Your task to perform on an android device: Play the last video I watched on Youtube Image 0: 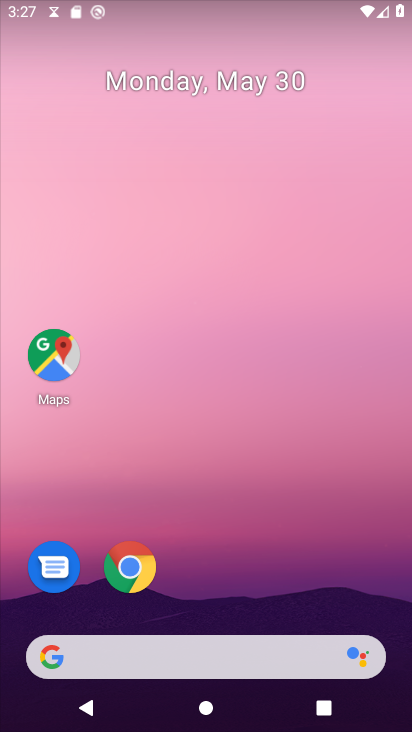
Step 0: drag from (271, 705) to (151, 63)
Your task to perform on an android device: Play the last video I watched on Youtube Image 1: 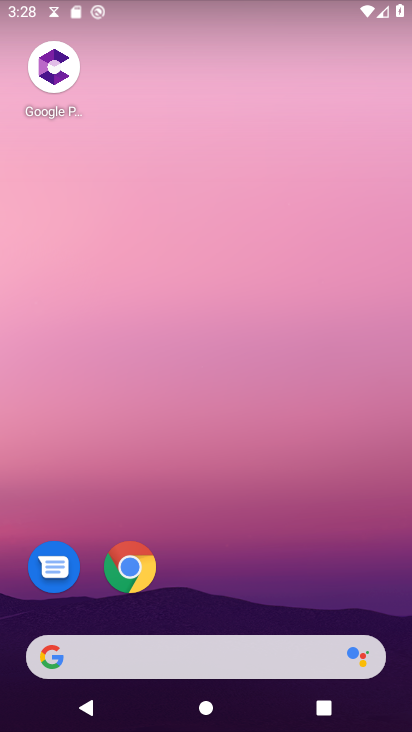
Step 1: drag from (263, 679) to (140, 36)
Your task to perform on an android device: Play the last video I watched on Youtube Image 2: 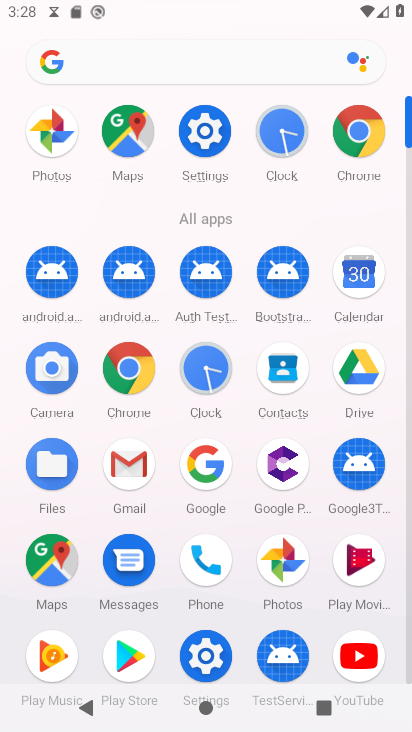
Step 2: drag from (216, 464) to (228, 36)
Your task to perform on an android device: Play the last video I watched on Youtube Image 3: 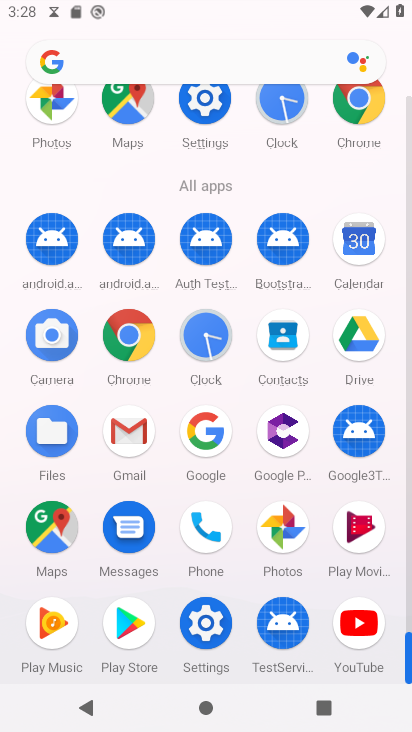
Step 3: click (359, 612)
Your task to perform on an android device: Play the last video I watched on Youtube Image 4: 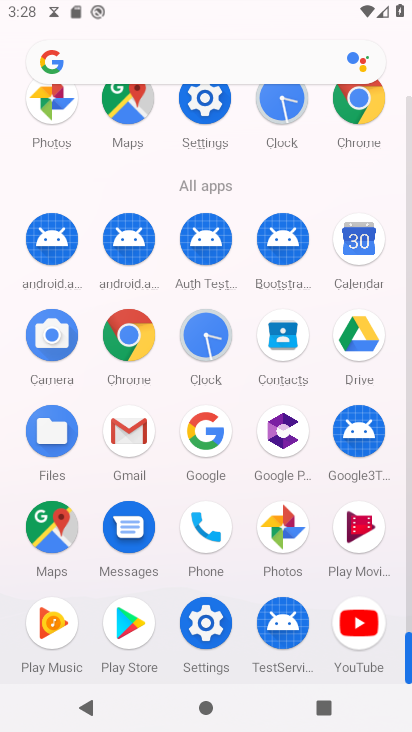
Step 4: click (359, 614)
Your task to perform on an android device: Play the last video I watched on Youtube Image 5: 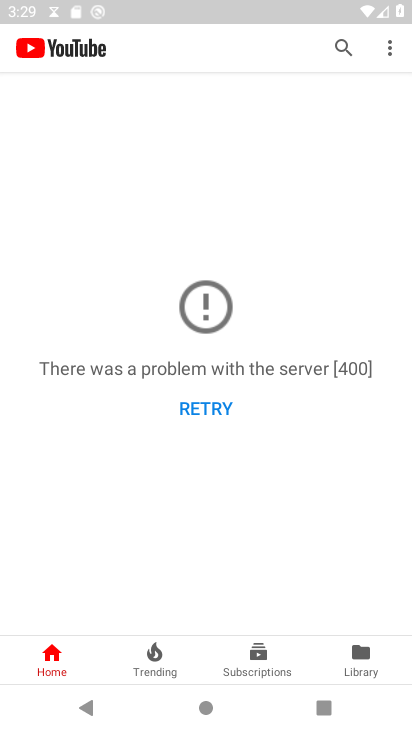
Step 5: task complete